Your task to perform on an android device: change your default location settings in chrome Image 0: 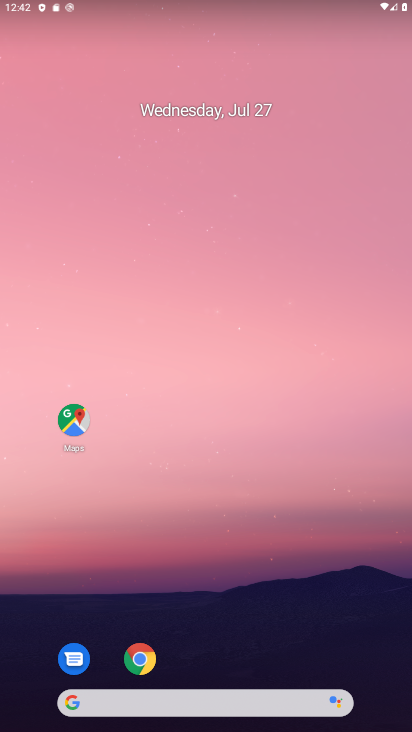
Step 0: click (273, 83)
Your task to perform on an android device: change your default location settings in chrome Image 1: 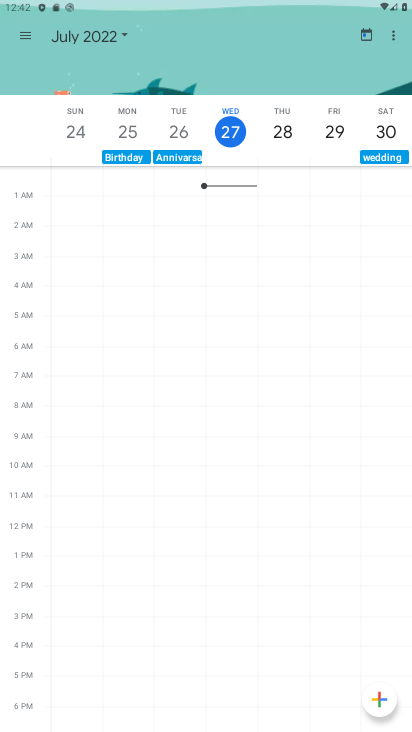
Step 1: press home button
Your task to perform on an android device: change your default location settings in chrome Image 2: 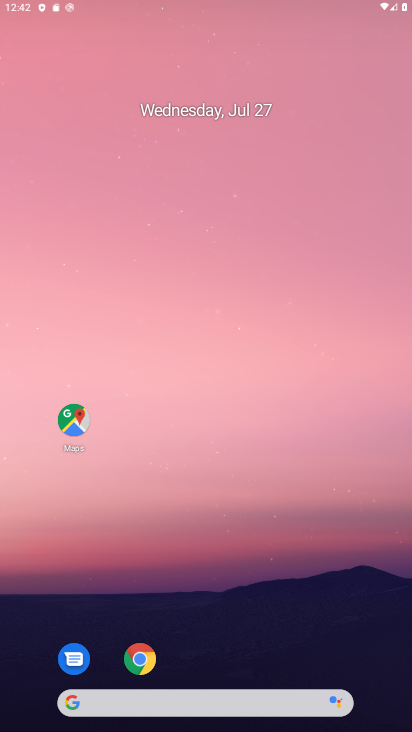
Step 2: drag from (303, 632) to (281, 101)
Your task to perform on an android device: change your default location settings in chrome Image 3: 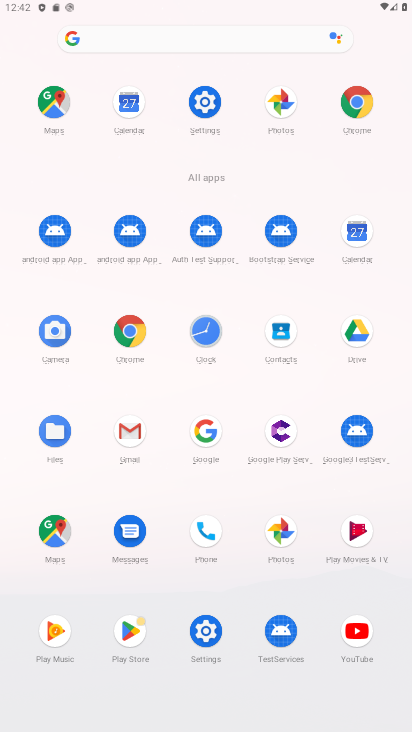
Step 3: click (356, 107)
Your task to perform on an android device: change your default location settings in chrome Image 4: 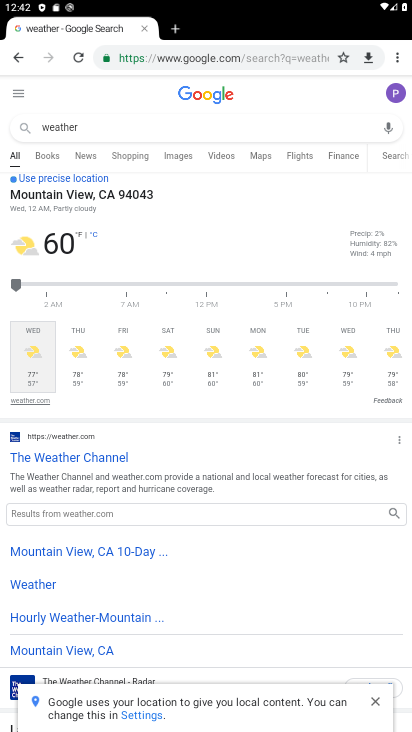
Step 4: drag from (403, 58) to (274, 357)
Your task to perform on an android device: change your default location settings in chrome Image 5: 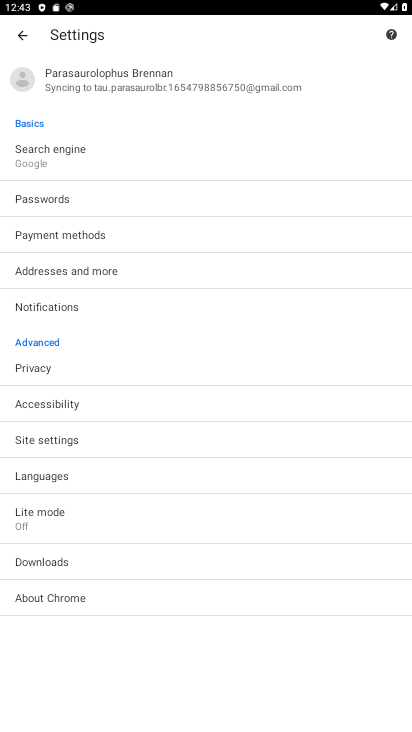
Step 5: click (69, 444)
Your task to perform on an android device: change your default location settings in chrome Image 6: 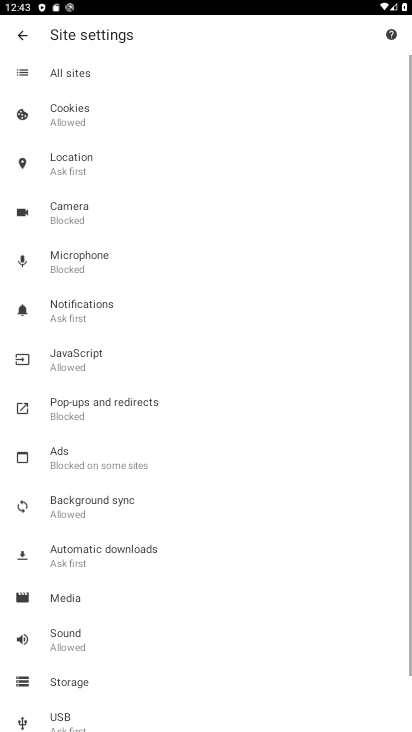
Step 6: click (111, 162)
Your task to perform on an android device: change your default location settings in chrome Image 7: 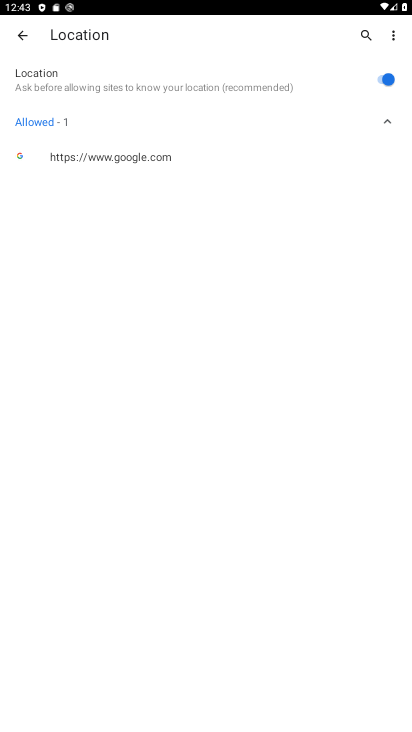
Step 7: click (365, 74)
Your task to perform on an android device: change your default location settings in chrome Image 8: 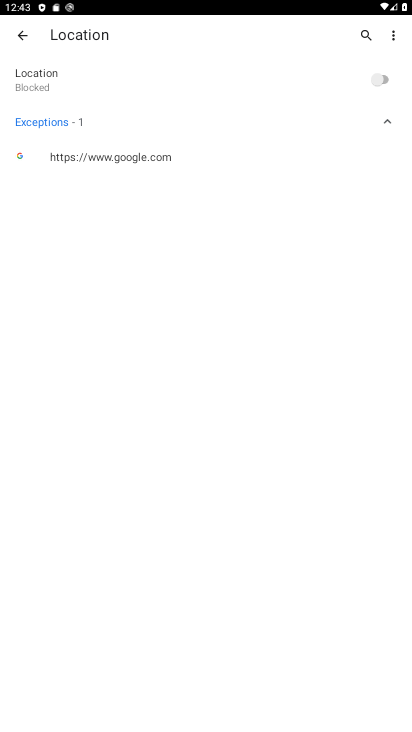
Step 8: task complete